Your task to perform on an android device: Search for the best vacuum on Amazon. Image 0: 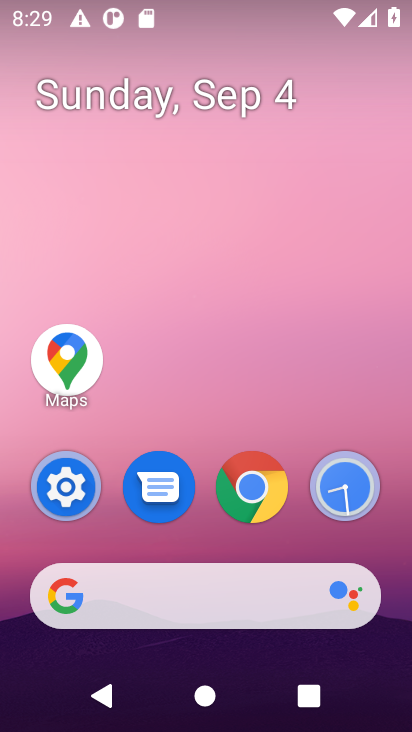
Step 0: click (62, 364)
Your task to perform on an android device: Search for the best vacuum on Amazon. Image 1: 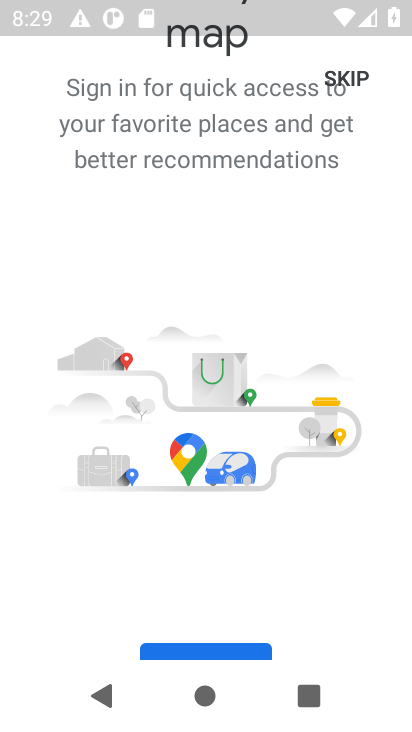
Step 1: task complete